Your task to perform on an android device: open device folders in google photos Image 0: 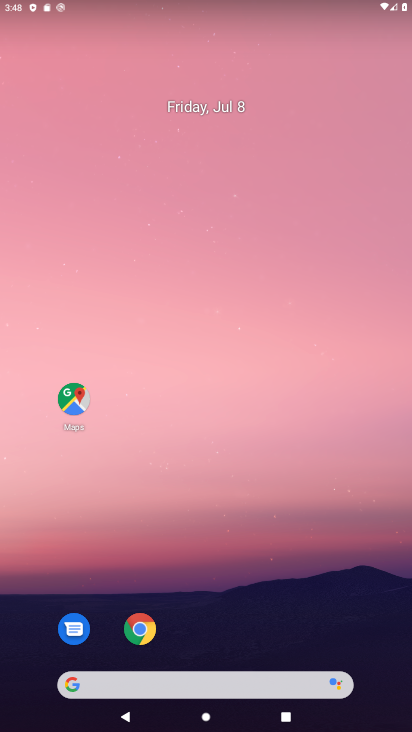
Step 0: drag from (191, 661) to (305, 38)
Your task to perform on an android device: open device folders in google photos Image 1: 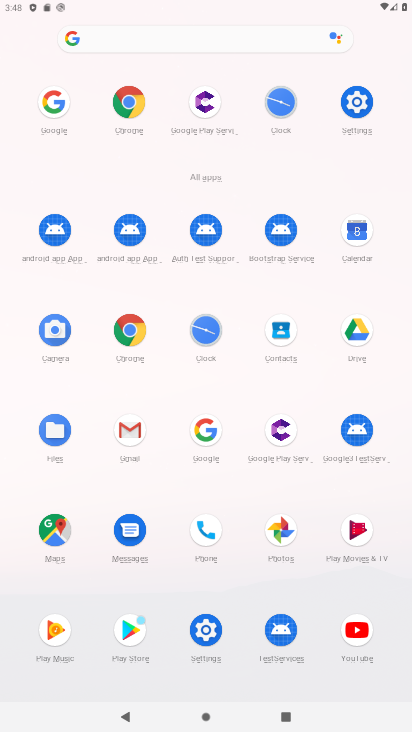
Step 1: click (290, 525)
Your task to perform on an android device: open device folders in google photos Image 2: 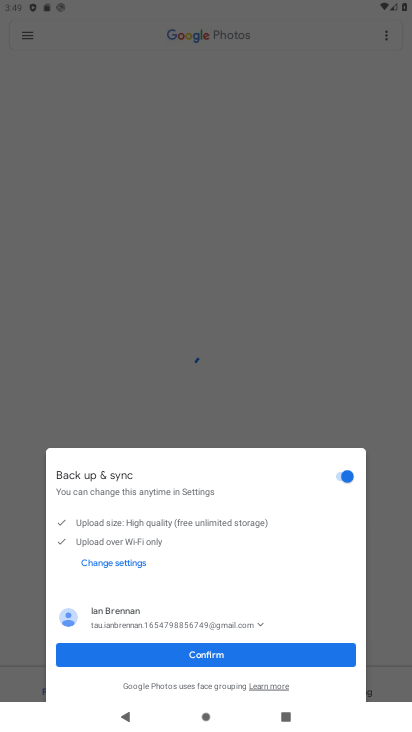
Step 2: click (279, 658)
Your task to perform on an android device: open device folders in google photos Image 3: 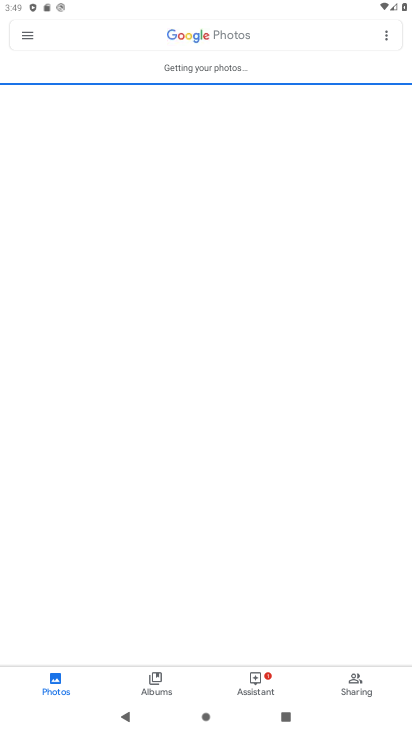
Step 3: click (25, 31)
Your task to perform on an android device: open device folders in google photos Image 4: 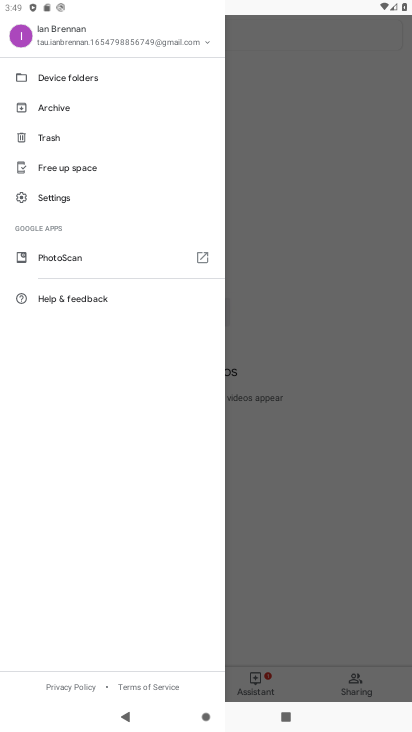
Step 4: click (51, 74)
Your task to perform on an android device: open device folders in google photos Image 5: 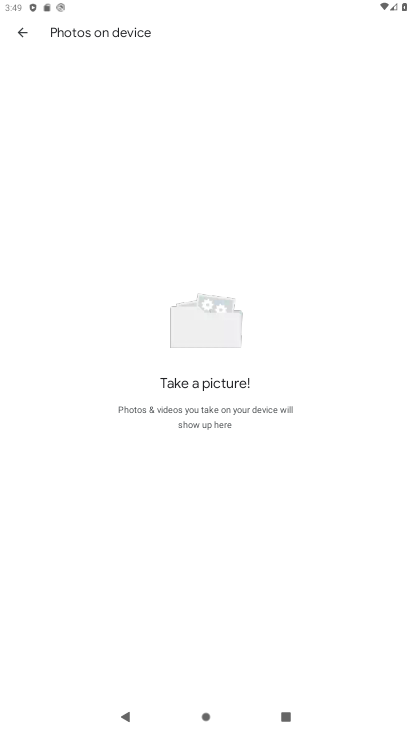
Step 5: task complete